Your task to perform on an android device: open the mobile data screen to see how much data has been used Image 0: 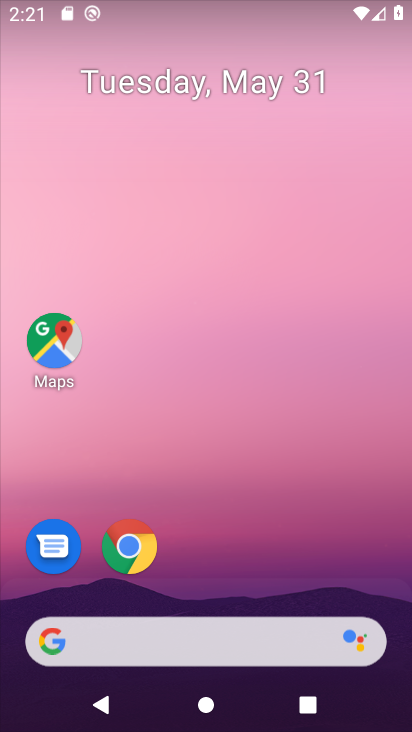
Step 0: drag from (252, 546) to (271, 36)
Your task to perform on an android device: open the mobile data screen to see how much data has been used Image 1: 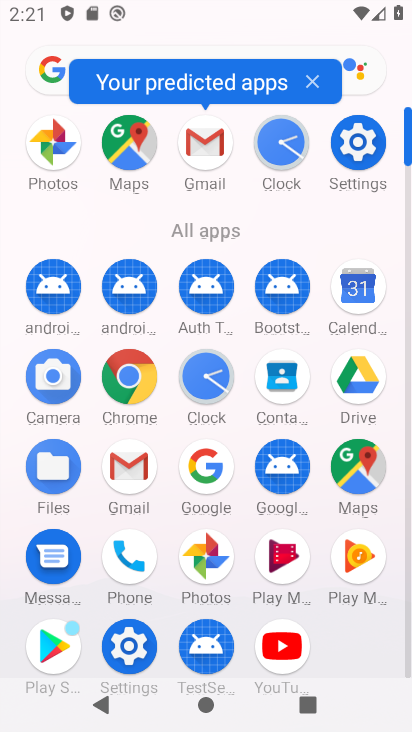
Step 1: click (346, 127)
Your task to perform on an android device: open the mobile data screen to see how much data has been used Image 2: 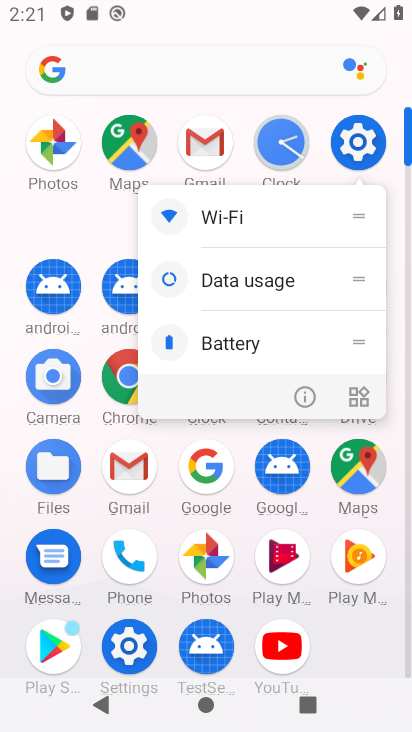
Step 2: click (352, 131)
Your task to perform on an android device: open the mobile data screen to see how much data has been used Image 3: 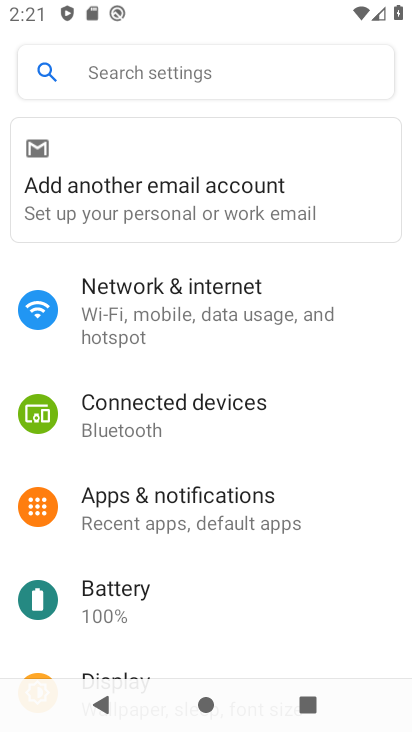
Step 3: click (199, 292)
Your task to perform on an android device: open the mobile data screen to see how much data has been used Image 4: 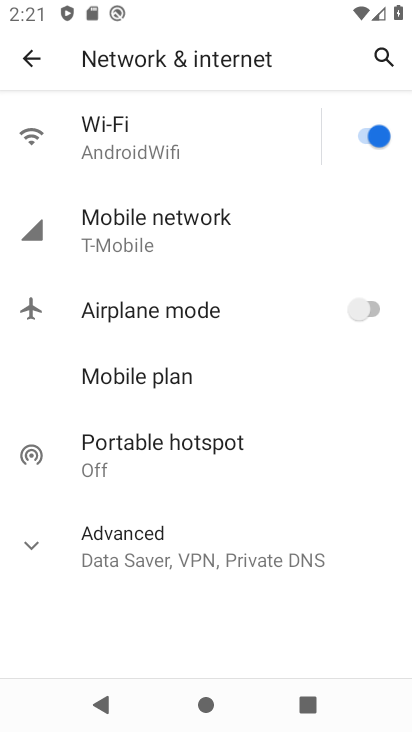
Step 4: click (228, 236)
Your task to perform on an android device: open the mobile data screen to see how much data has been used Image 5: 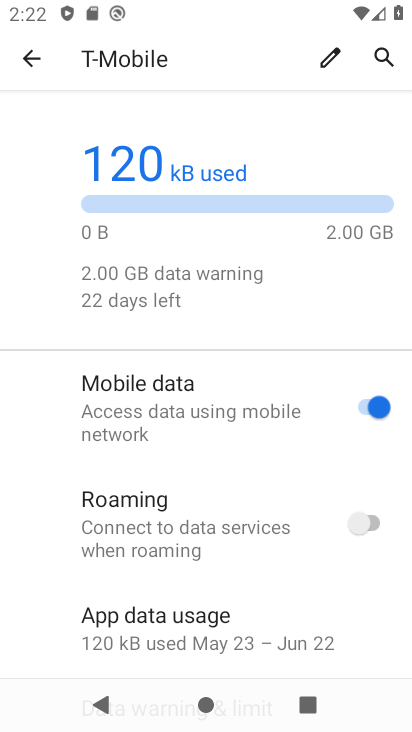
Step 5: task complete